Your task to perform on an android device: turn notification dots on Image 0: 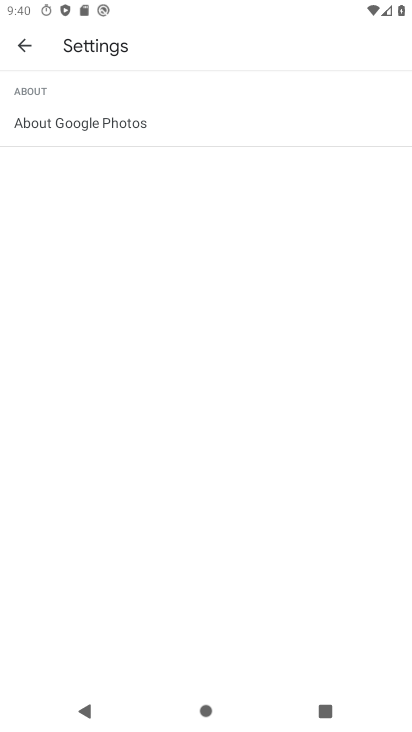
Step 0: press home button
Your task to perform on an android device: turn notification dots on Image 1: 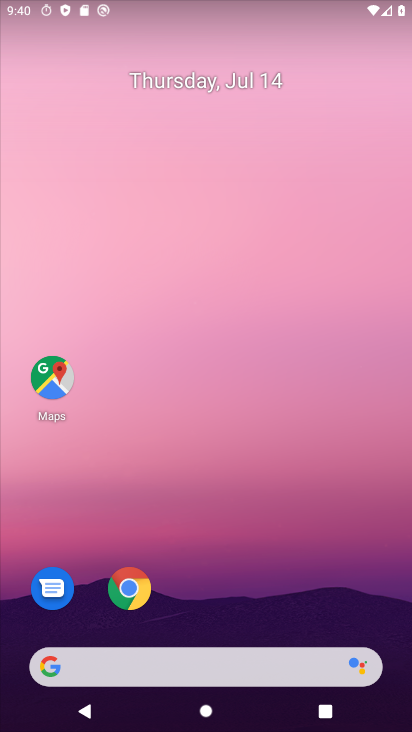
Step 1: drag from (128, 644) to (128, 155)
Your task to perform on an android device: turn notification dots on Image 2: 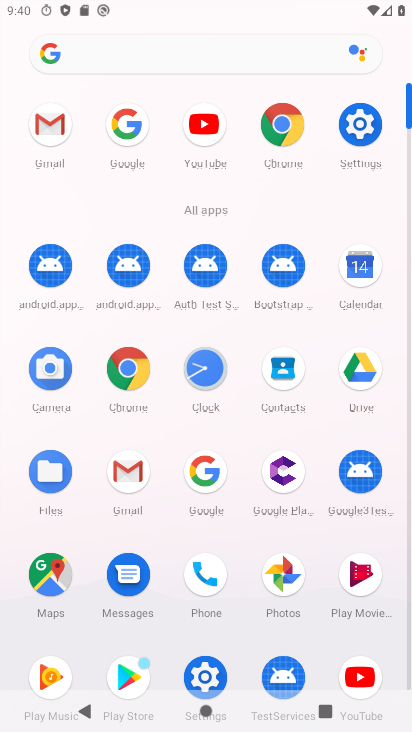
Step 2: click (208, 667)
Your task to perform on an android device: turn notification dots on Image 3: 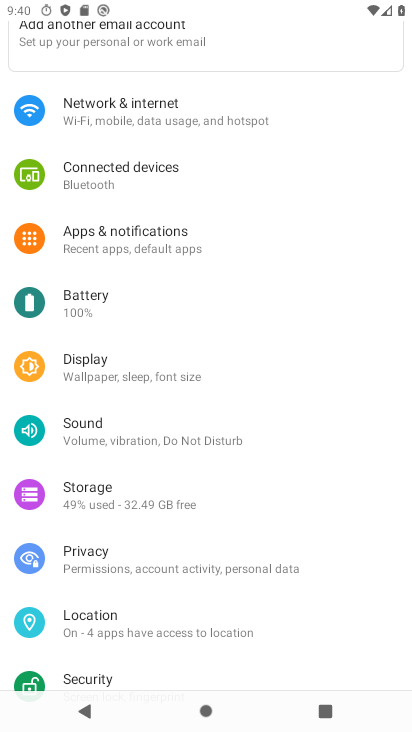
Step 3: click (156, 239)
Your task to perform on an android device: turn notification dots on Image 4: 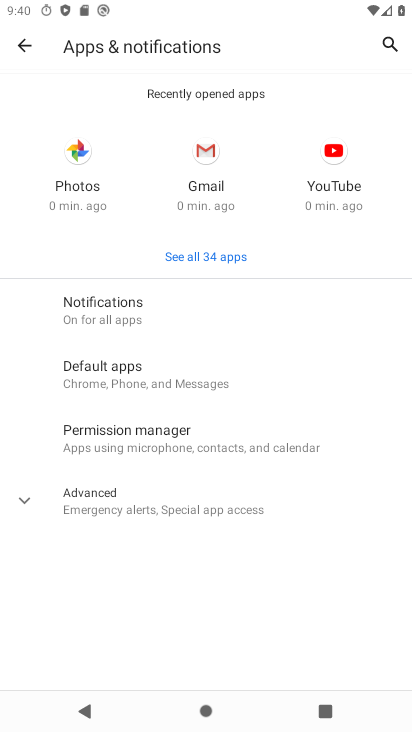
Step 4: click (76, 314)
Your task to perform on an android device: turn notification dots on Image 5: 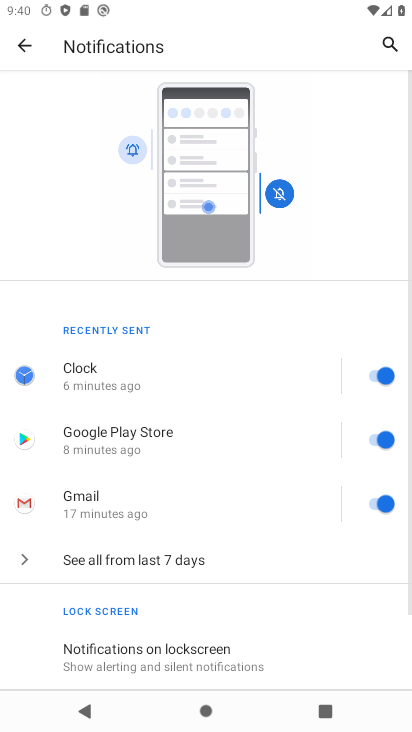
Step 5: drag from (128, 595) to (63, 90)
Your task to perform on an android device: turn notification dots on Image 6: 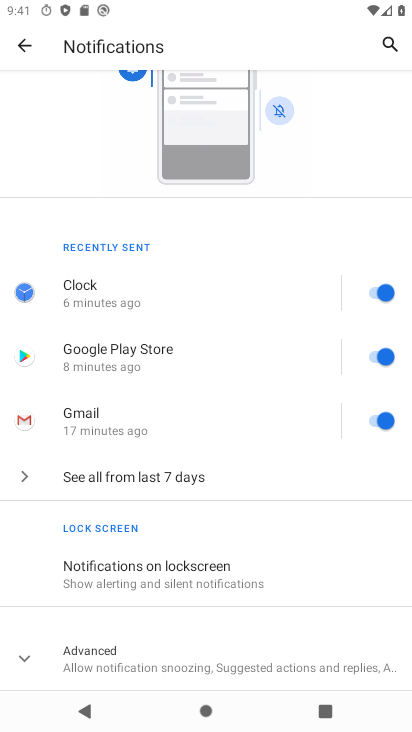
Step 6: click (83, 664)
Your task to perform on an android device: turn notification dots on Image 7: 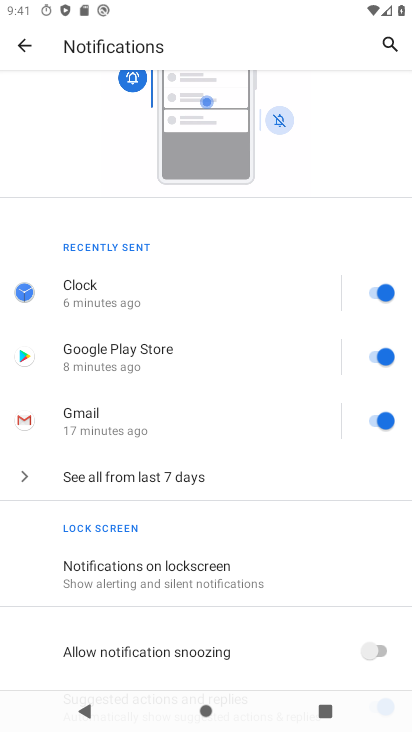
Step 7: task complete